Your task to perform on an android device: check storage Image 0: 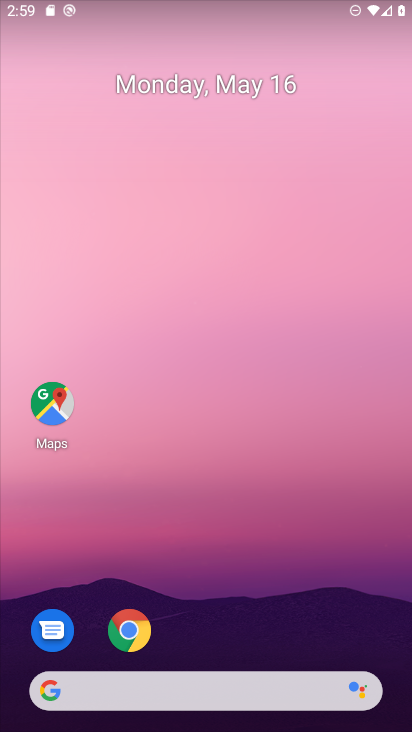
Step 0: drag from (221, 470) to (206, 2)
Your task to perform on an android device: check storage Image 1: 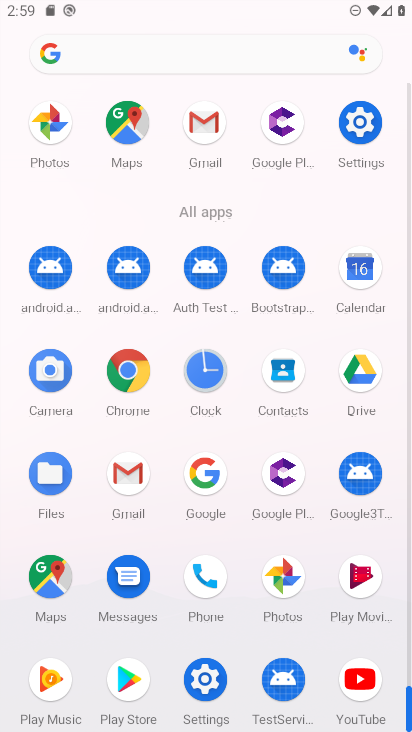
Step 1: click (204, 677)
Your task to perform on an android device: check storage Image 2: 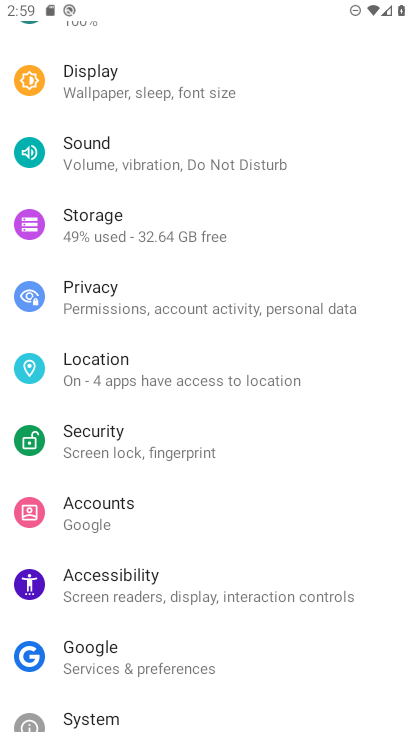
Step 2: drag from (297, 141) to (298, 591)
Your task to perform on an android device: check storage Image 3: 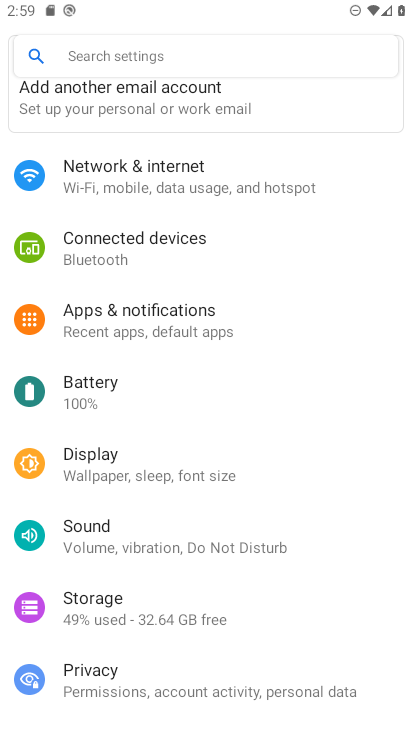
Step 3: drag from (288, 585) to (305, 182)
Your task to perform on an android device: check storage Image 4: 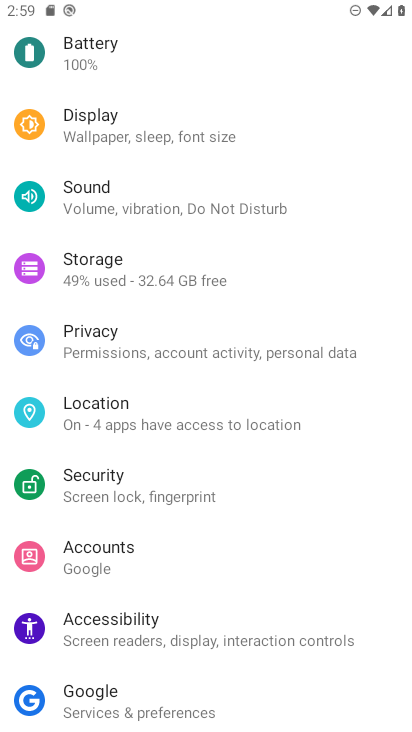
Step 4: drag from (254, 616) to (285, 182)
Your task to perform on an android device: check storage Image 5: 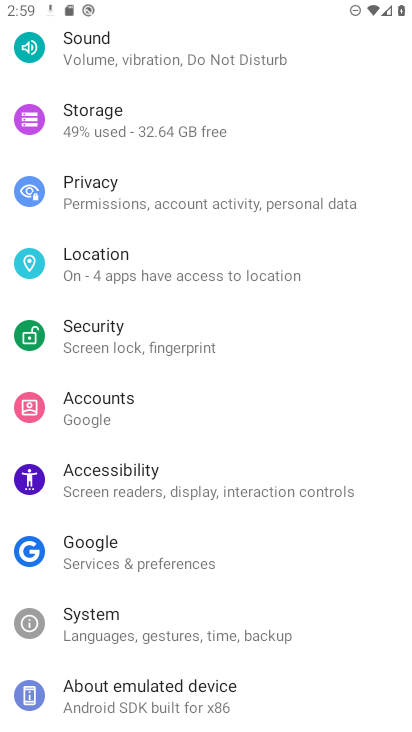
Step 5: drag from (214, 153) to (223, 365)
Your task to perform on an android device: check storage Image 6: 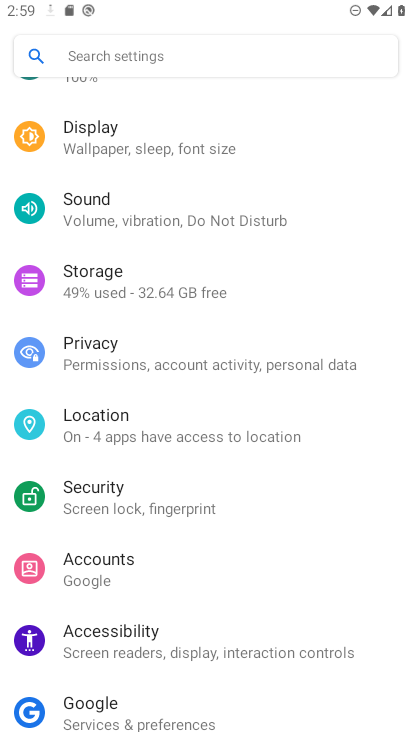
Step 6: click (147, 264)
Your task to perform on an android device: check storage Image 7: 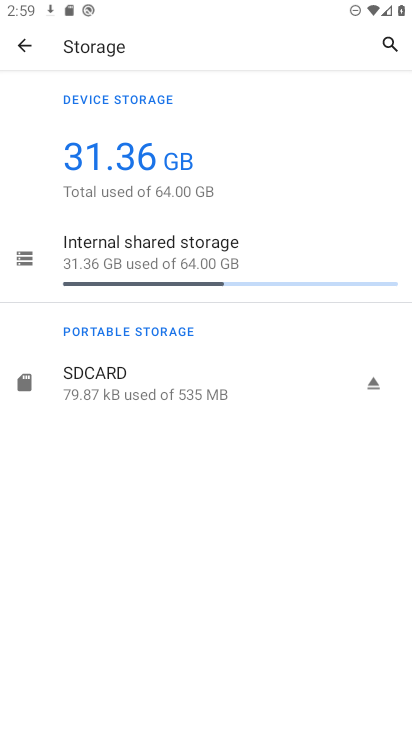
Step 7: task complete